Your task to perform on an android device: Go to display settings Image 0: 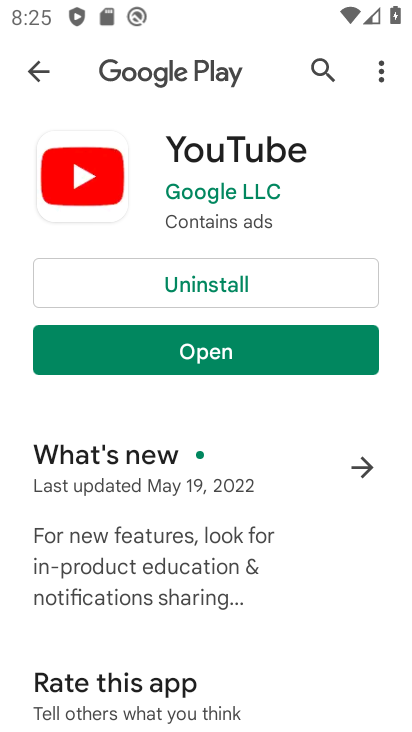
Step 0: press home button
Your task to perform on an android device: Go to display settings Image 1: 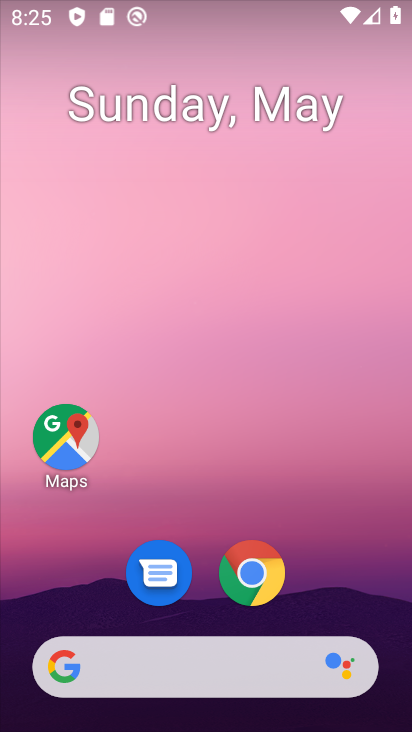
Step 1: drag from (365, 603) to (304, 97)
Your task to perform on an android device: Go to display settings Image 2: 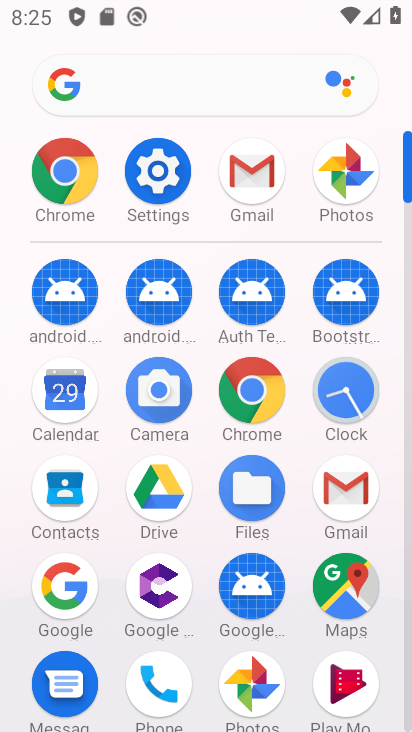
Step 2: click (179, 171)
Your task to perform on an android device: Go to display settings Image 3: 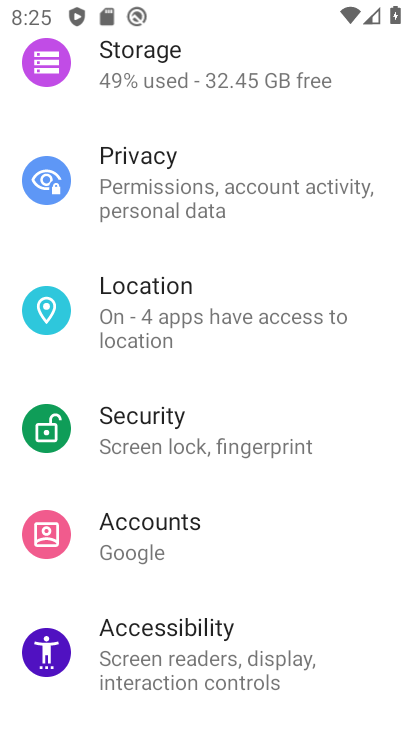
Step 3: drag from (190, 192) to (193, 673)
Your task to perform on an android device: Go to display settings Image 4: 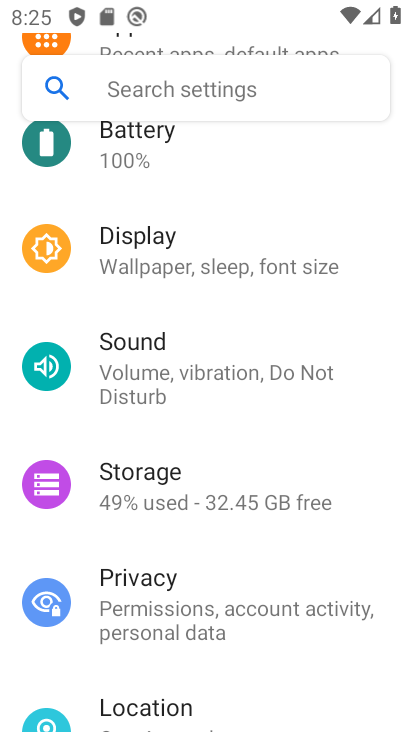
Step 4: click (207, 272)
Your task to perform on an android device: Go to display settings Image 5: 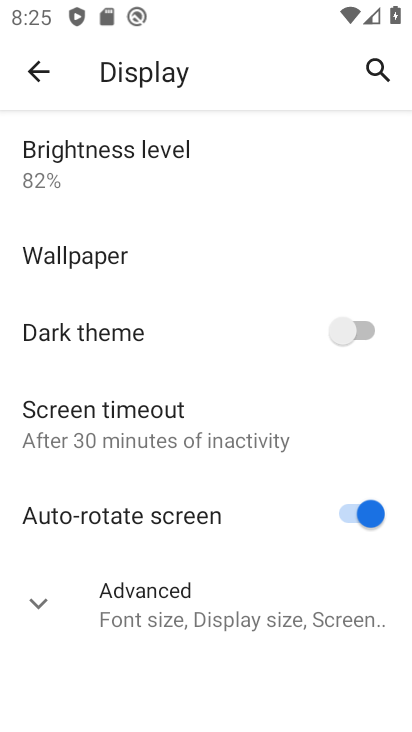
Step 5: task complete